Your task to perform on an android device: change the clock display to digital Image 0: 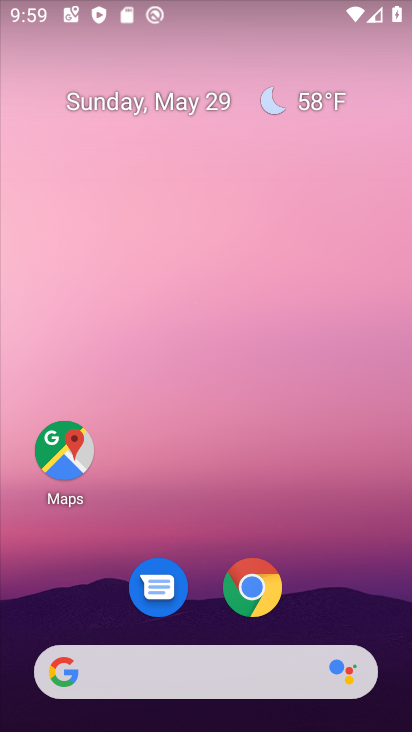
Step 0: drag from (396, 611) to (239, 103)
Your task to perform on an android device: change the clock display to digital Image 1: 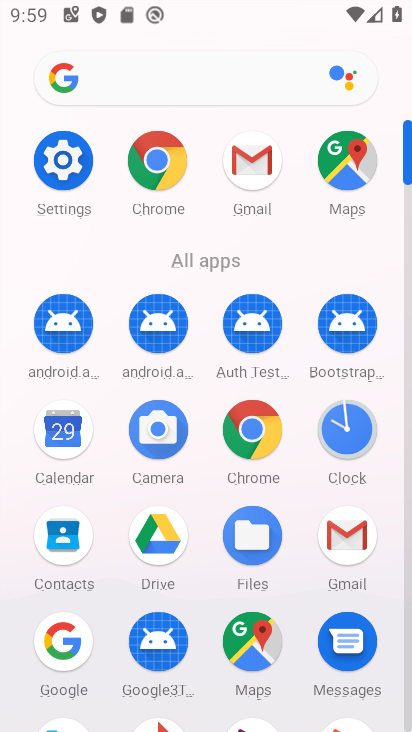
Step 1: click (339, 444)
Your task to perform on an android device: change the clock display to digital Image 2: 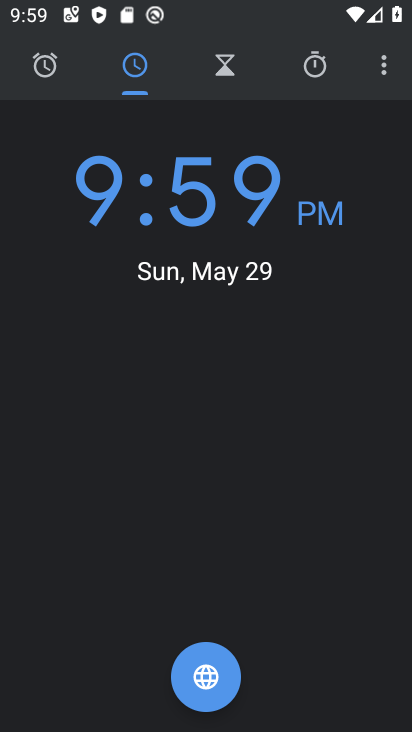
Step 2: click (383, 63)
Your task to perform on an android device: change the clock display to digital Image 3: 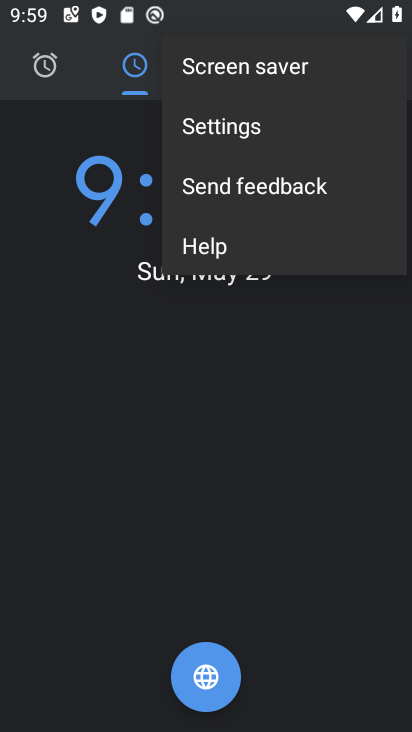
Step 3: click (326, 143)
Your task to perform on an android device: change the clock display to digital Image 4: 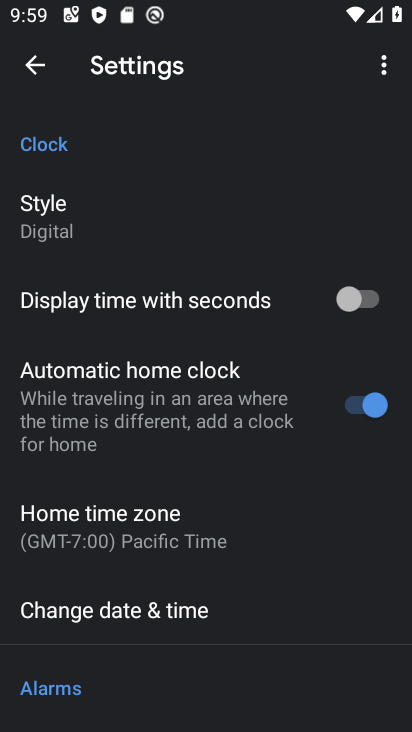
Step 4: click (218, 222)
Your task to perform on an android device: change the clock display to digital Image 5: 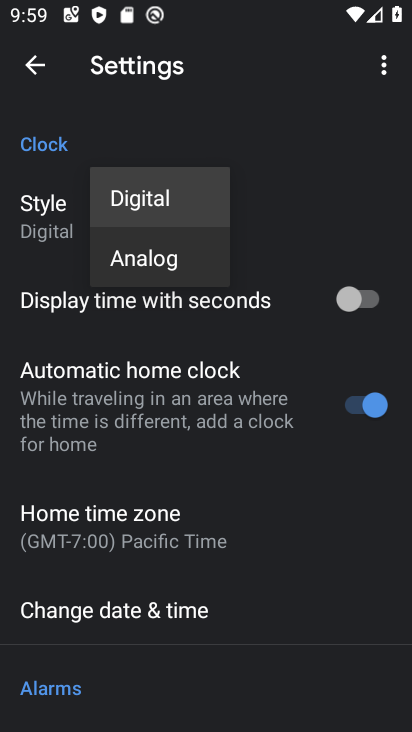
Step 5: task complete